Your task to perform on an android device: see sites visited before in the chrome app Image 0: 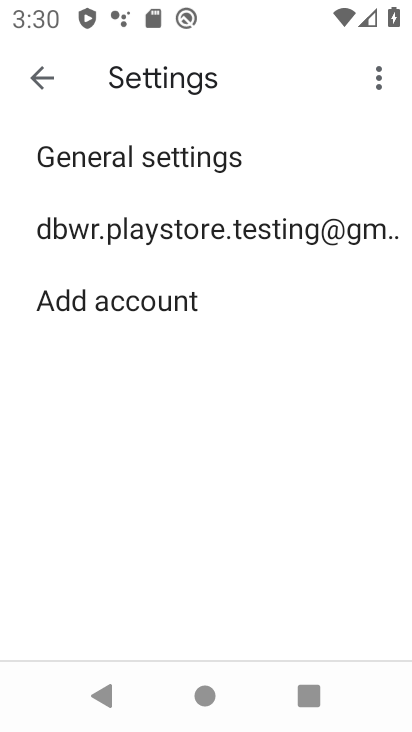
Step 0: press home button
Your task to perform on an android device: see sites visited before in the chrome app Image 1: 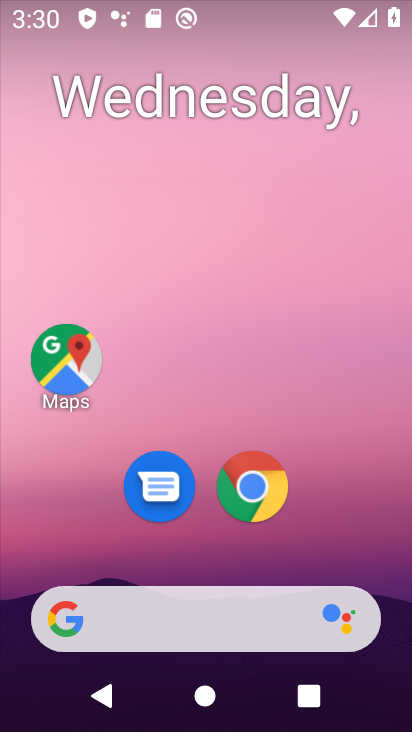
Step 1: click (235, 495)
Your task to perform on an android device: see sites visited before in the chrome app Image 2: 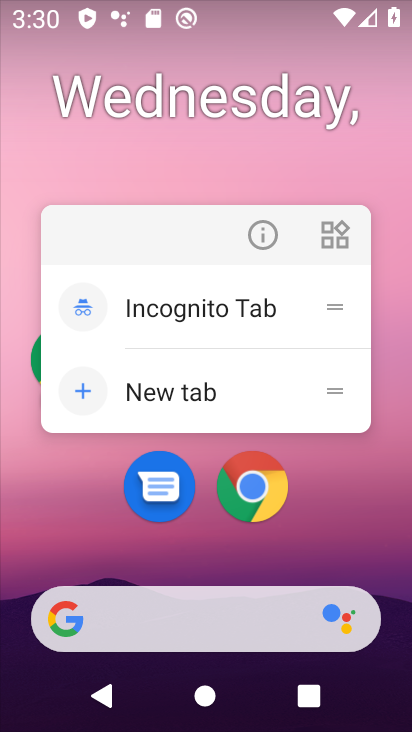
Step 2: click (248, 492)
Your task to perform on an android device: see sites visited before in the chrome app Image 3: 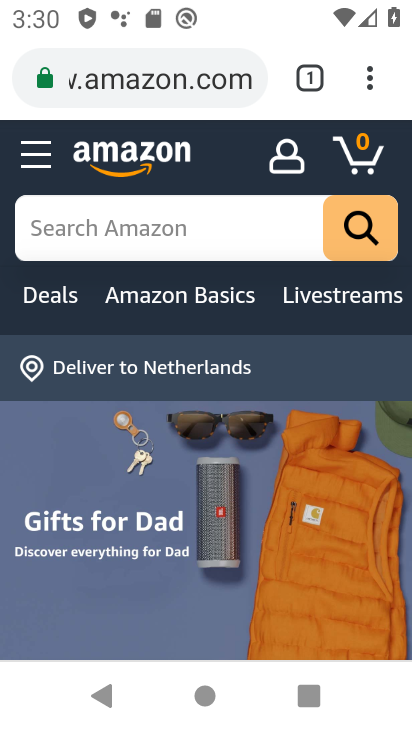
Step 3: click (370, 78)
Your task to perform on an android device: see sites visited before in the chrome app Image 4: 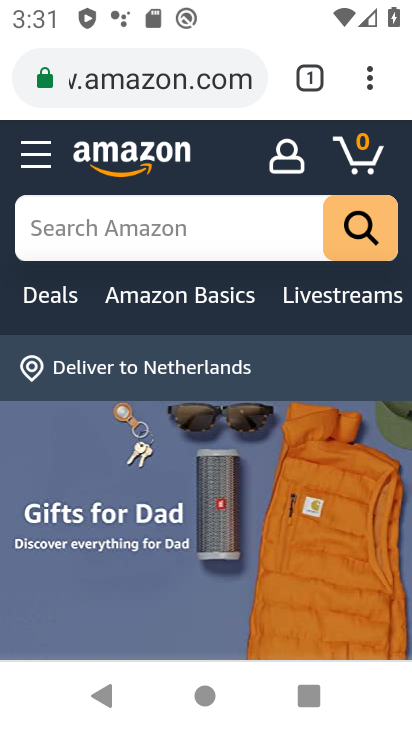
Step 4: drag from (249, 573) to (234, 195)
Your task to perform on an android device: see sites visited before in the chrome app Image 5: 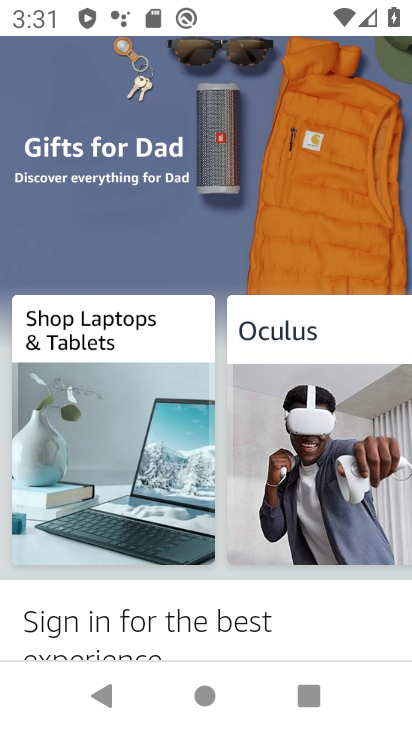
Step 5: drag from (263, 188) to (286, 499)
Your task to perform on an android device: see sites visited before in the chrome app Image 6: 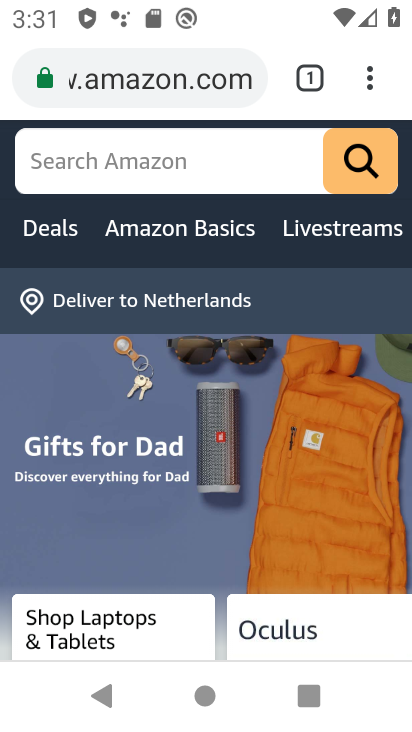
Step 6: click (319, 72)
Your task to perform on an android device: see sites visited before in the chrome app Image 7: 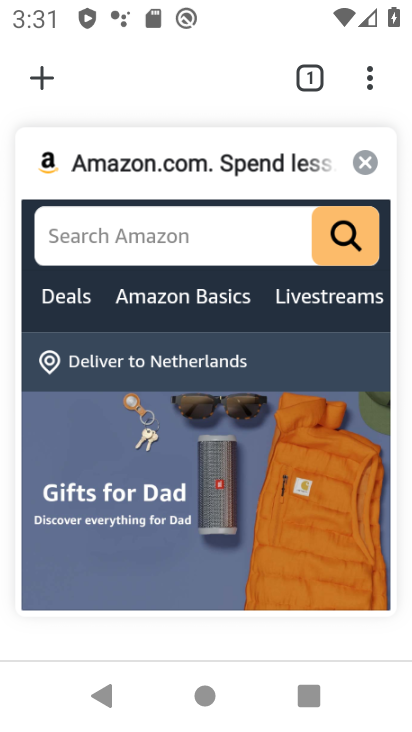
Step 7: task complete